Your task to perform on an android device: Search for flights from NYC to Tokyo Image 0: 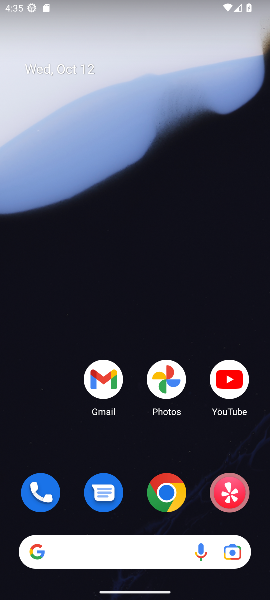
Step 0: click (172, 495)
Your task to perform on an android device: Search for flights from NYC to Tokyo Image 1: 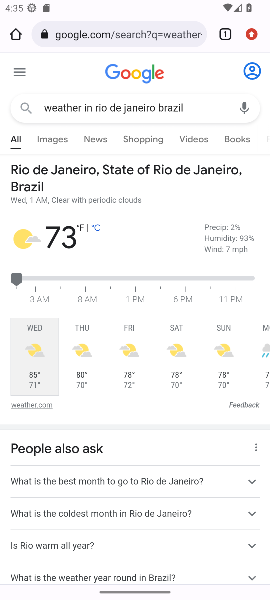
Step 1: click (112, 27)
Your task to perform on an android device: Search for flights from NYC to Tokyo Image 2: 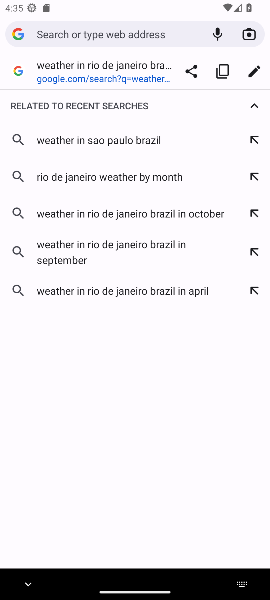
Step 2: type " NYC to Tokyo flights"
Your task to perform on an android device: Search for flights from NYC to Tokyo Image 3: 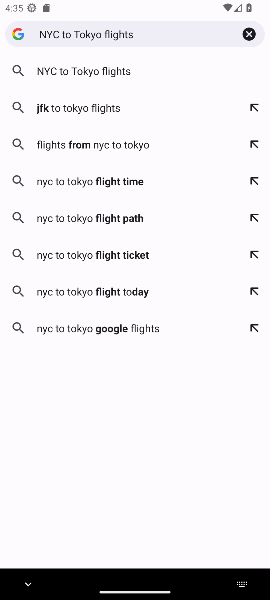
Step 3: click (84, 79)
Your task to perform on an android device: Search for flights from NYC to Tokyo Image 4: 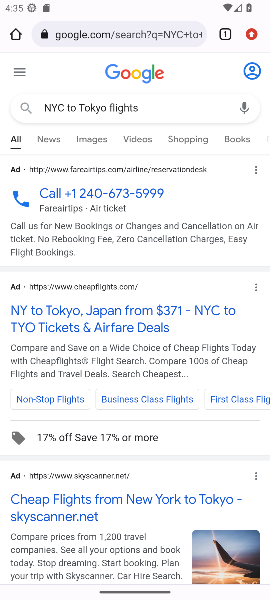
Step 4: click (96, 332)
Your task to perform on an android device: Search for flights from NYC to Tokyo Image 5: 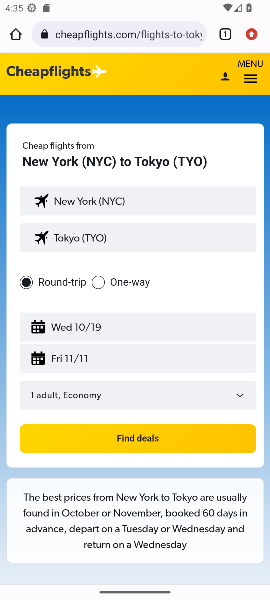
Step 5: task complete